Your task to perform on an android device: turn off javascript in the chrome app Image 0: 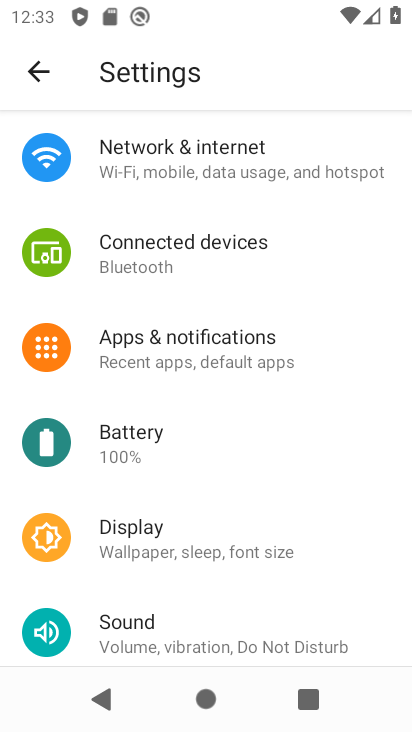
Step 0: press home button
Your task to perform on an android device: turn off javascript in the chrome app Image 1: 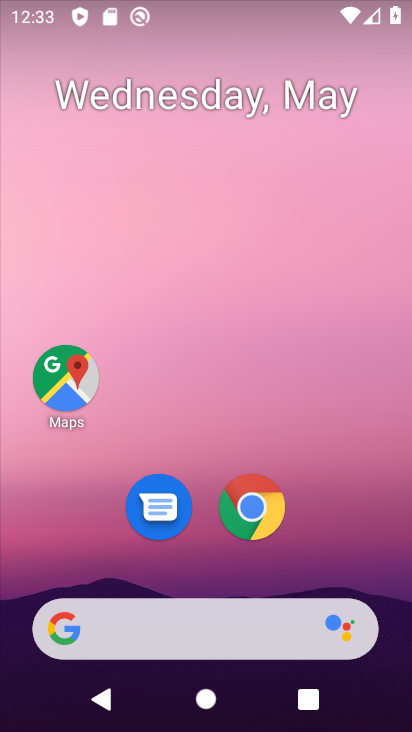
Step 1: click (246, 503)
Your task to perform on an android device: turn off javascript in the chrome app Image 2: 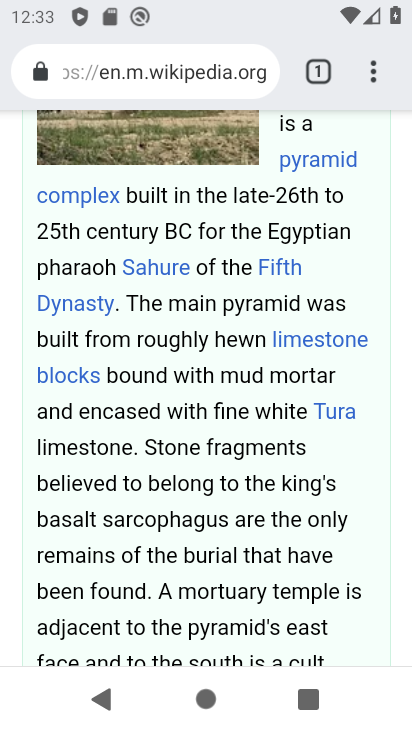
Step 2: click (373, 76)
Your task to perform on an android device: turn off javascript in the chrome app Image 3: 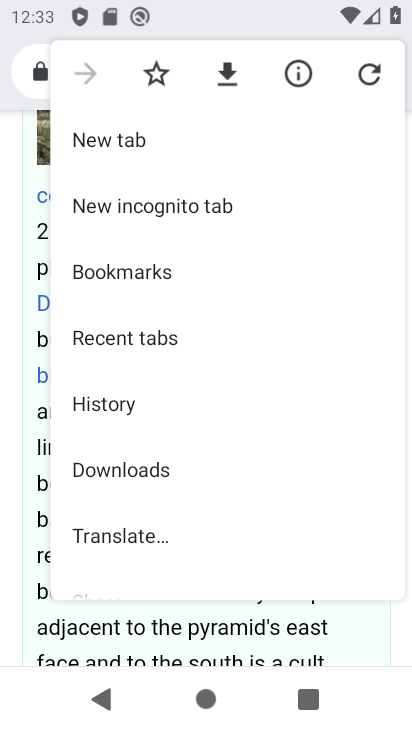
Step 3: drag from (226, 488) to (228, 133)
Your task to perform on an android device: turn off javascript in the chrome app Image 4: 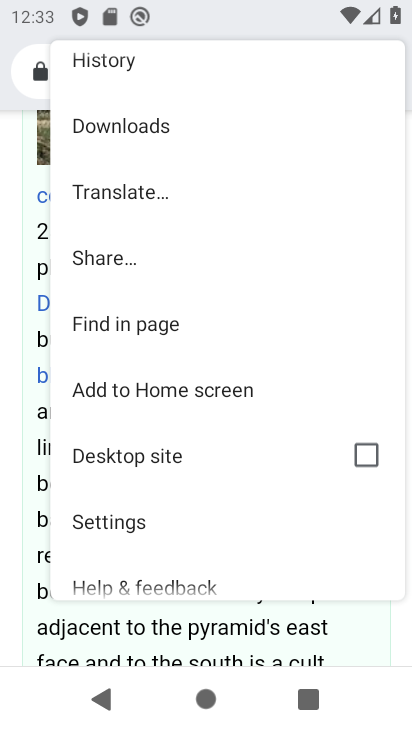
Step 4: click (114, 521)
Your task to perform on an android device: turn off javascript in the chrome app Image 5: 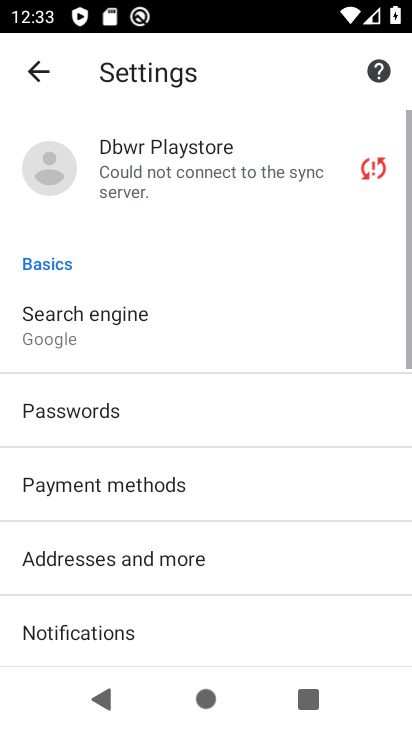
Step 5: drag from (231, 586) to (198, 185)
Your task to perform on an android device: turn off javascript in the chrome app Image 6: 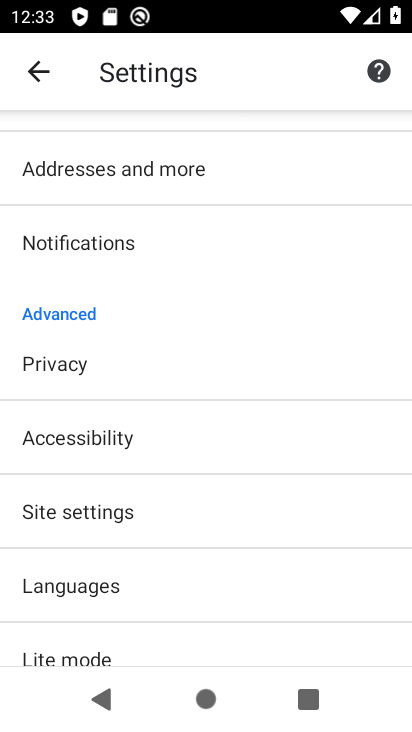
Step 6: click (100, 510)
Your task to perform on an android device: turn off javascript in the chrome app Image 7: 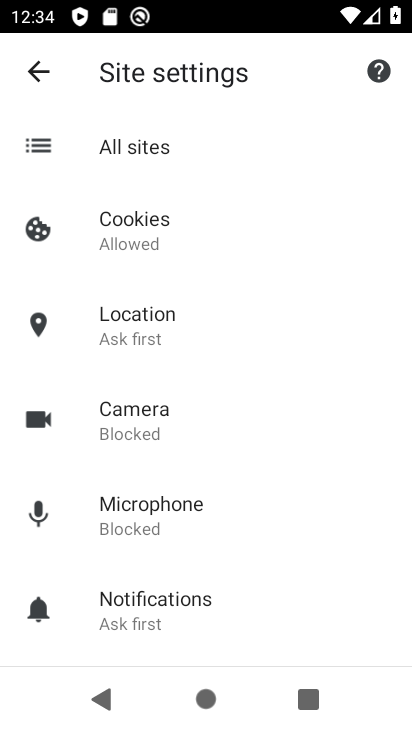
Step 7: drag from (231, 587) to (222, 217)
Your task to perform on an android device: turn off javascript in the chrome app Image 8: 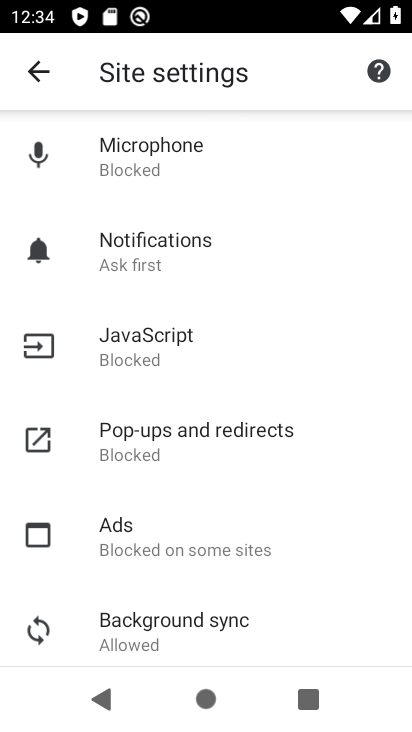
Step 8: click (129, 337)
Your task to perform on an android device: turn off javascript in the chrome app Image 9: 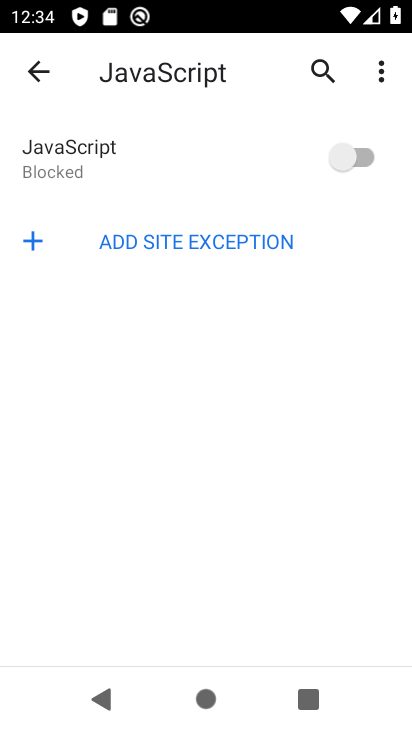
Step 9: task complete